Your task to perform on an android device: create a new album in the google photos Image 0: 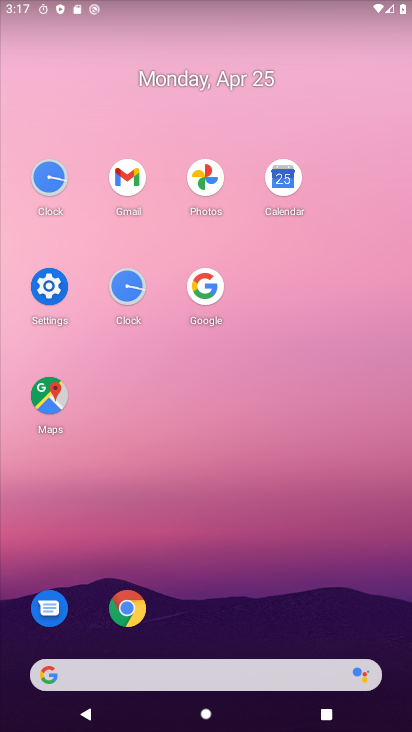
Step 0: click (205, 186)
Your task to perform on an android device: create a new album in the google photos Image 1: 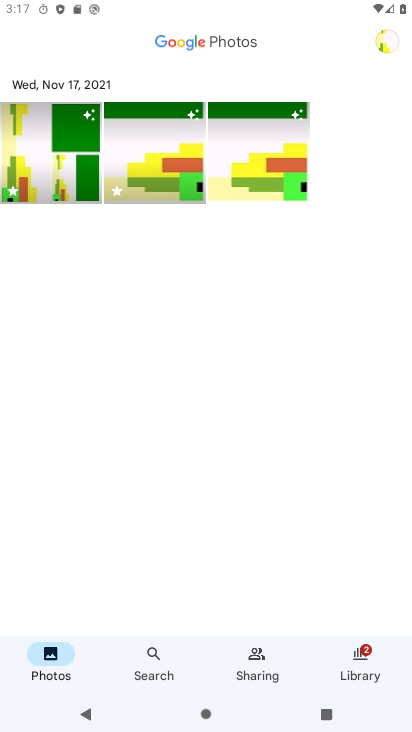
Step 1: click (349, 646)
Your task to perform on an android device: create a new album in the google photos Image 2: 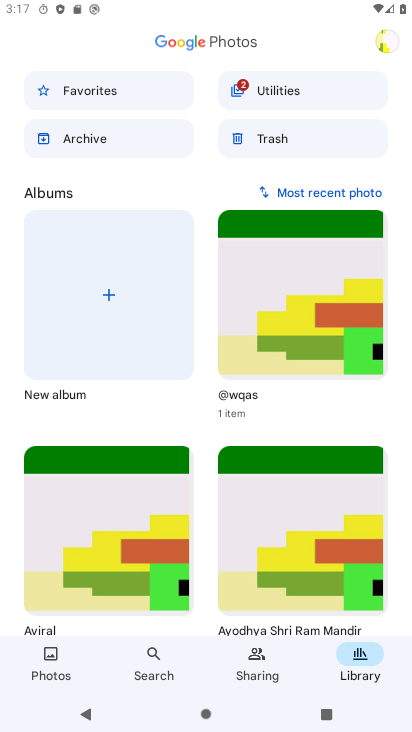
Step 2: click (101, 299)
Your task to perform on an android device: create a new album in the google photos Image 3: 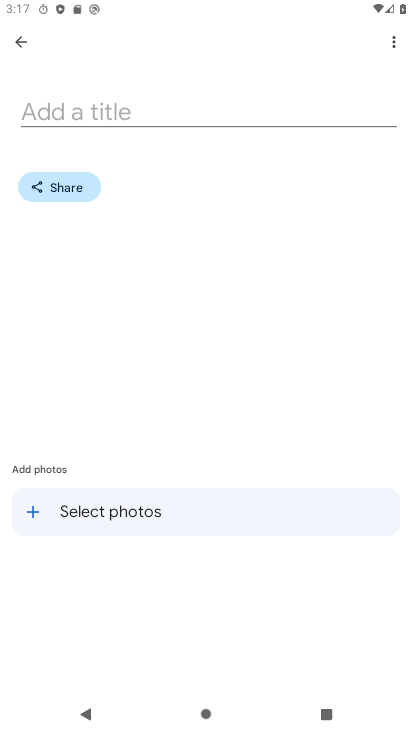
Step 3: drag from (136, 61) to (141, 104)
Your task to perform on an android device: create a new album in the google photos Image 4: 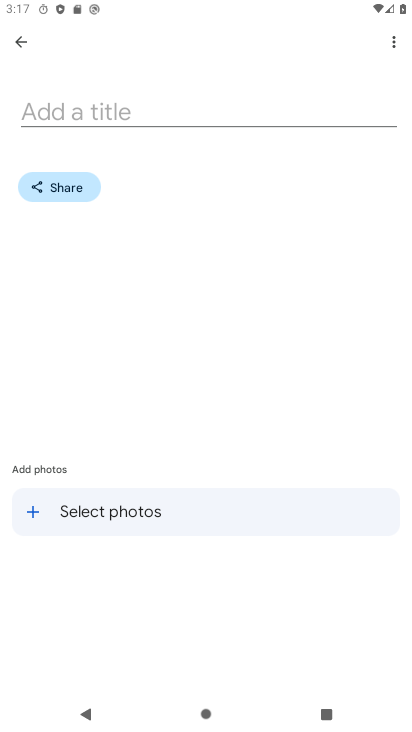
Step 4: click (193, 115)
Your task to perform on an android device: create a new album in the google photos Image 5: 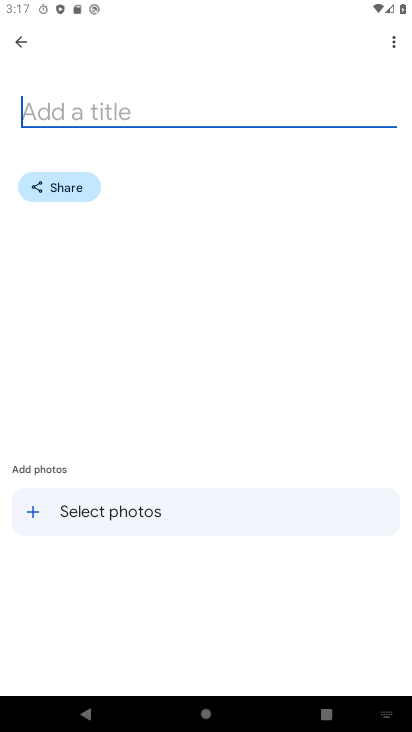
Step 5: type "aabbcc"
Your task to perform on an android device: create a new album in the google photos Image 6: 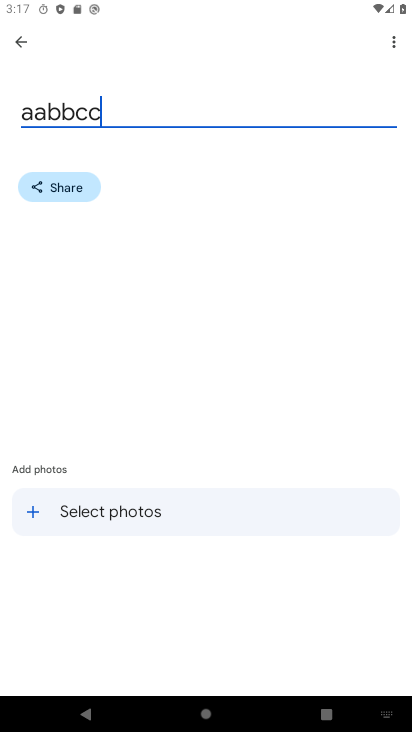
Step 6: click (34, 517)
Your task to perform on an android device: create a new album in the google photos Image 7: 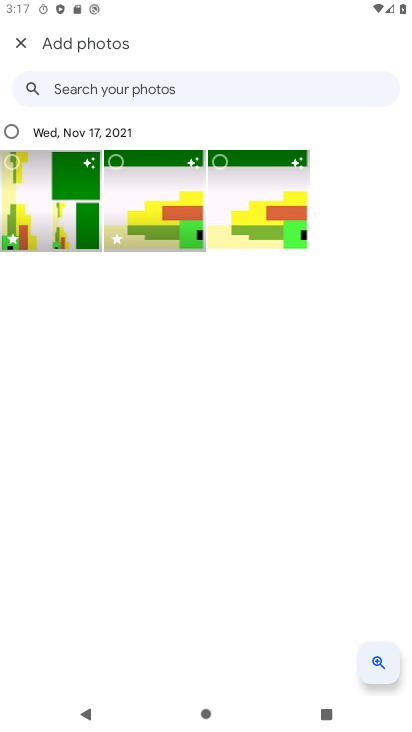
Step 7: click (6, 155)
Your task to perform on an android device: create a new album in the google photos Image 8: 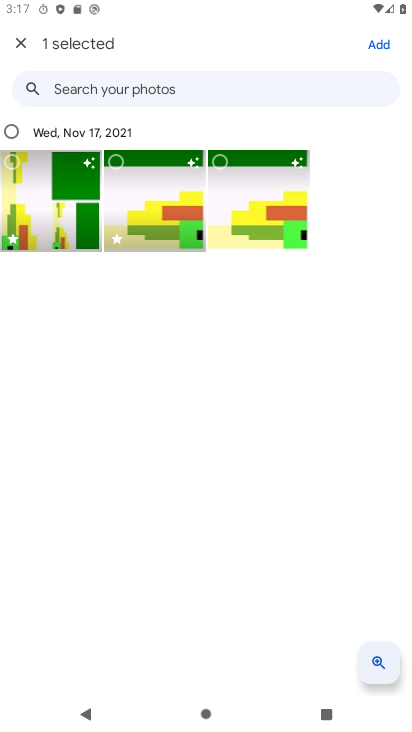
Step 8: click (120, 162)
Your task to perform on an android device: create a new album in the google photos Image 9: 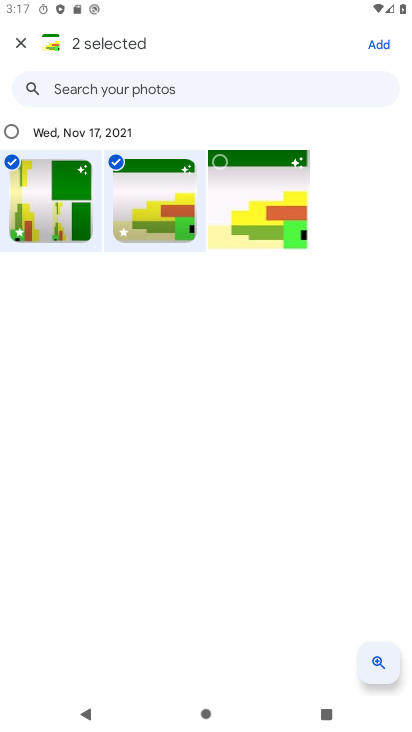
Step 9: click (378, 46)
Your task to perform on an android device: create a new album in the google photos Image 10: 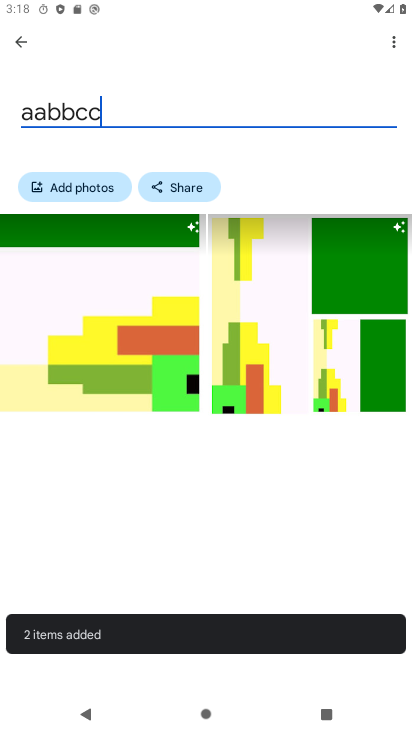
Step 10: task complete